Your task to perform on an android device: Open a new Chrome window Image 0: 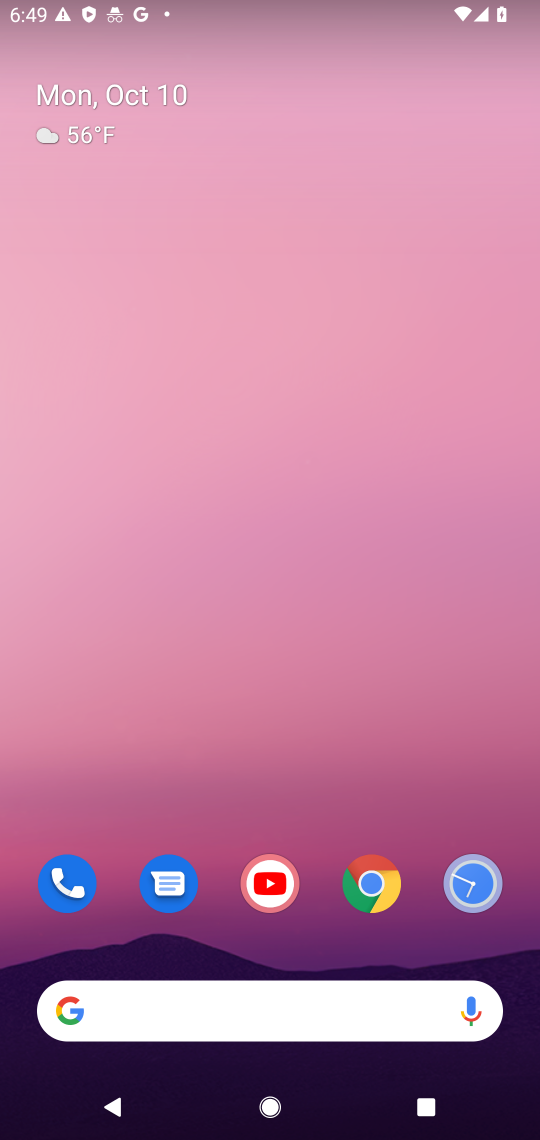
Step 0: drag from (341, 971) to (282, 167)
Your task to perform on an android device: Open a new Chrome window Image 1: 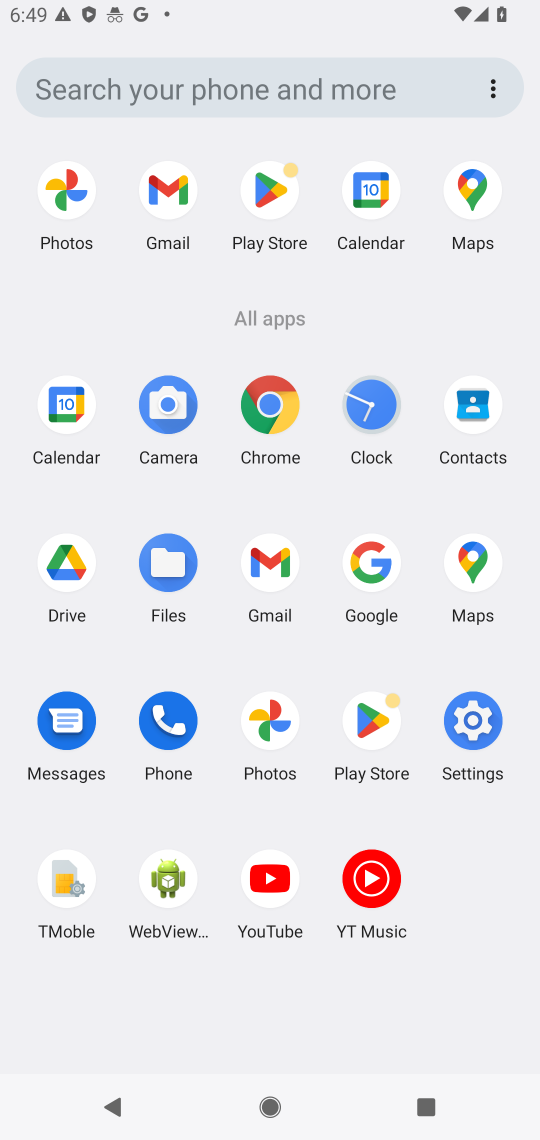
Step 1: click (288, 456)
Your task to perform on an android device: Open a new Chrome window Image 2: 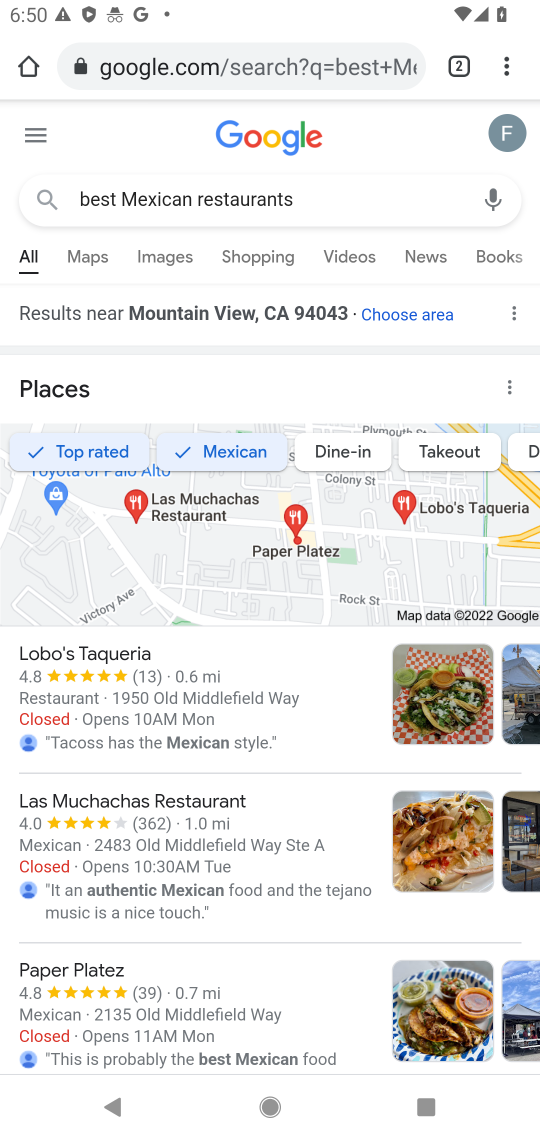
Step 2: drag from (460, 64) to (487, 876)
Your task to perform on an android device: Open a new Chrome window Image 3: 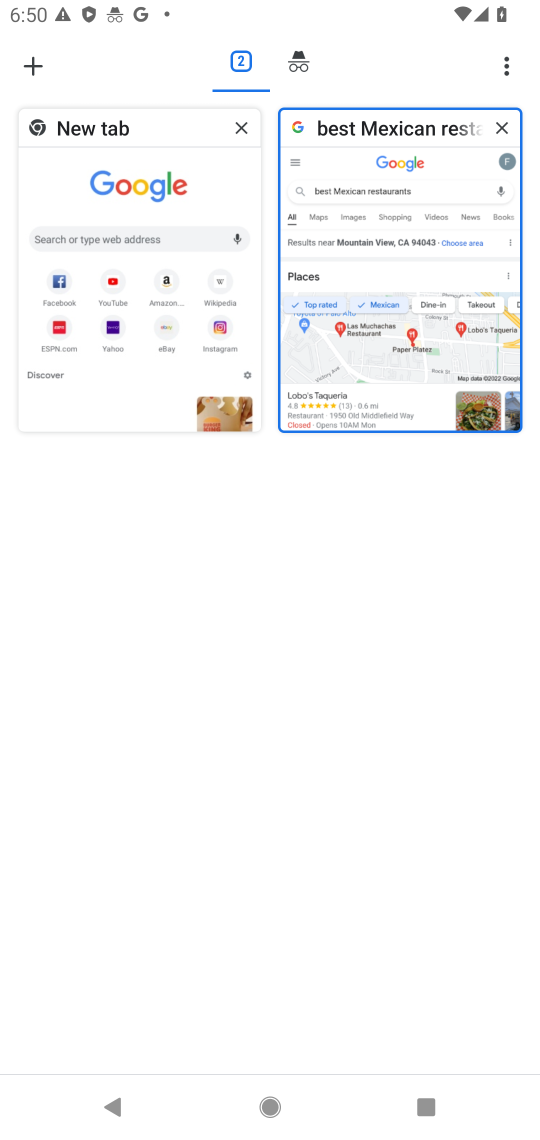
Step 3: click (41, 66)
Your task to perform on an android device: Open a new Chrome window Image 4: 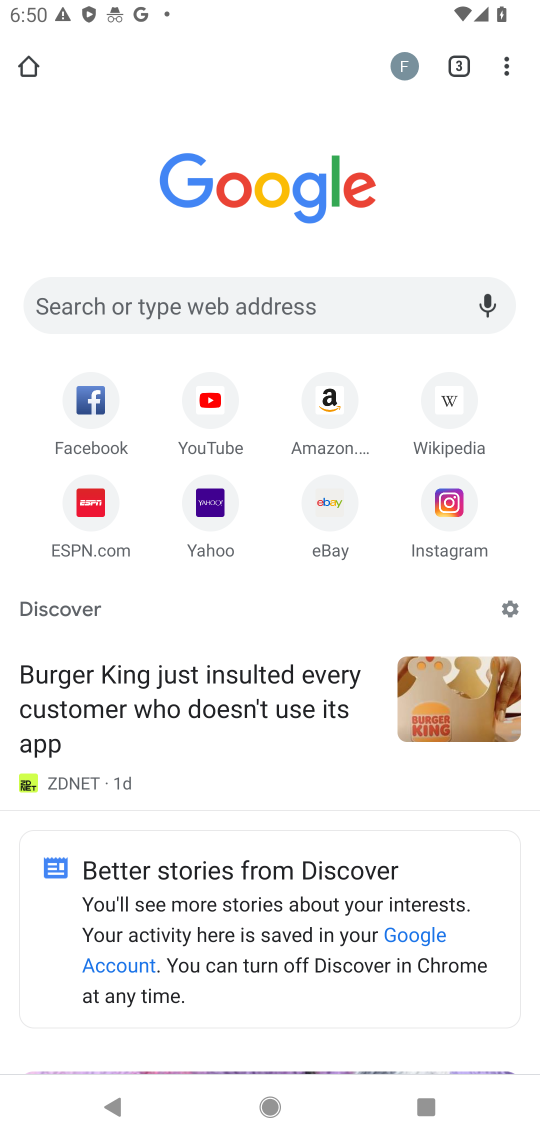
Step 4: task complete